Your task to perform on an android device: turn on improve location accuracy Image 0: 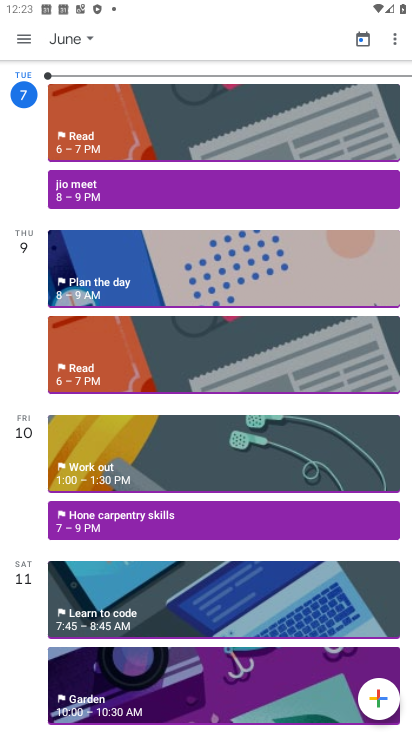
Step 0: press home button
Your task to perform on an android device: turn on improve location accuracy Image 1: 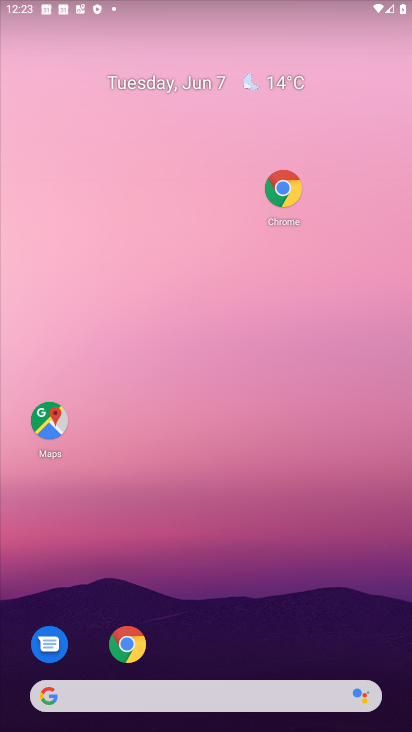
Step 1: drag from (278, 531) to (320, 12)
Your task to perform on an android device: turn on improve location accuracy Image 2: 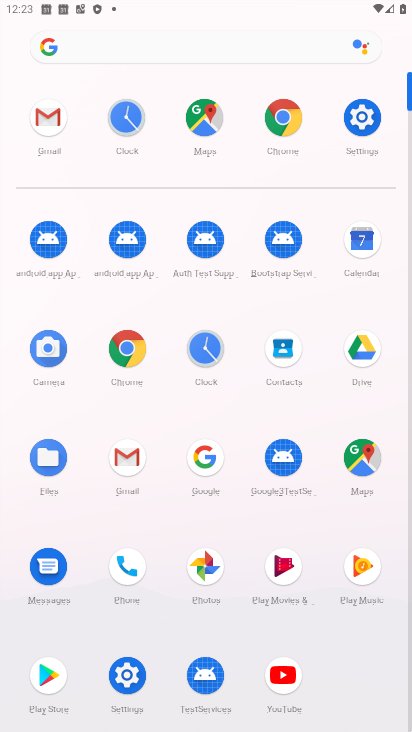
Step 2: click (375, 108)
Your task to perform on an android device: turn on improve location accuracy Image 3: 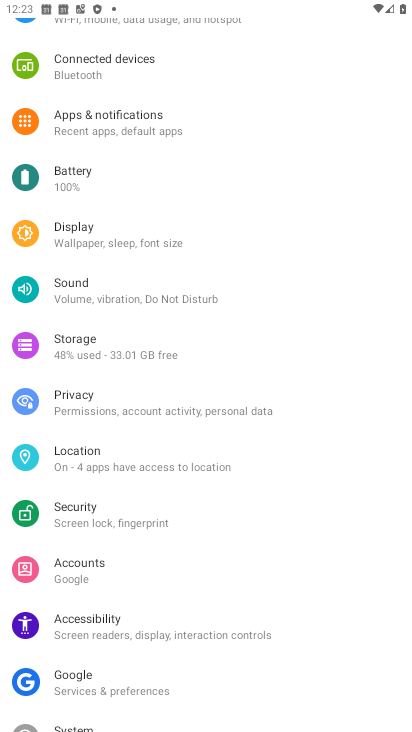
Step 3: click (127, 462)
Your task to perform on an android device: turn on improve location accuracy Image 4: 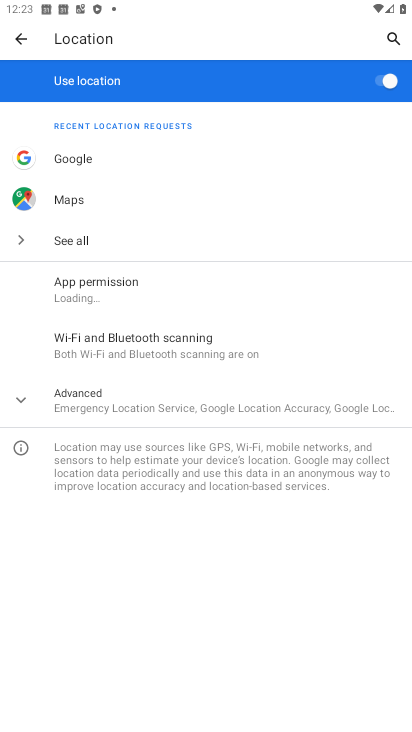
Step 4: click (114, 394)
Your task to perform on an android device: turn on improve location accuracy Image 5: 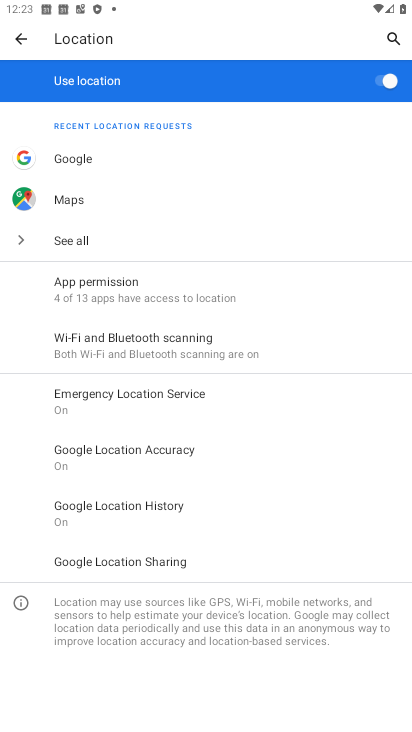
Step 5: click (172, 474)
Your task to perform on an android device: turn on improve location accuracy Image 6: 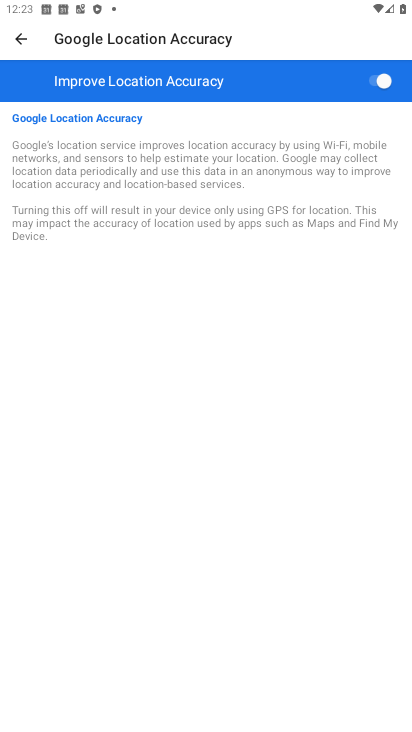
Step 6: task complete